Your task to perform on an android device: change the clock style Image 0: 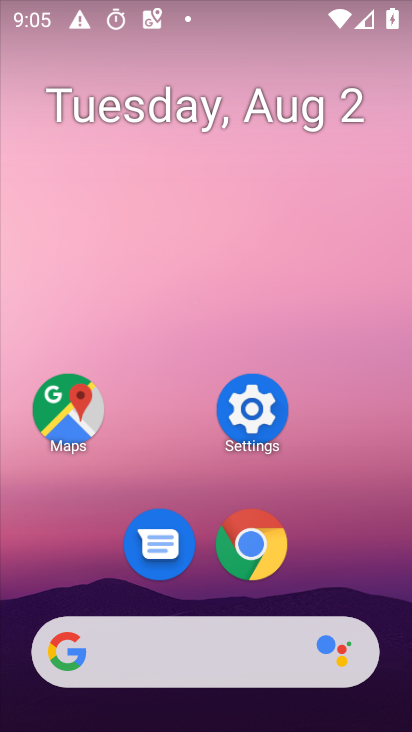
Step 0: drag from (204, 660) to (359, 13)
Your task to perform on an android device: change the clock style Image 1: 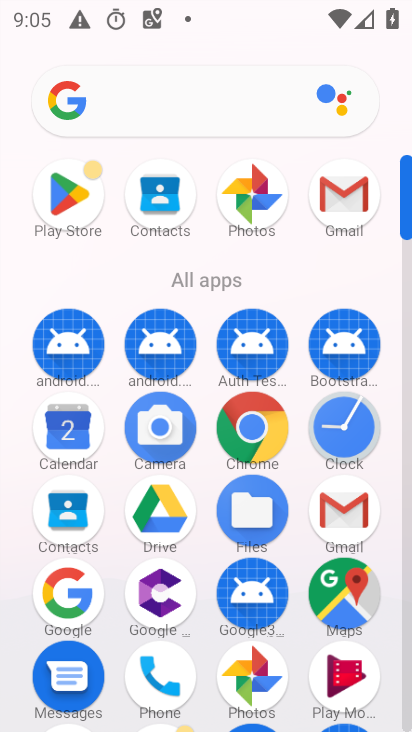
Step 1: click (335, 429)
Your task to perform on an android device: change the clock style Image 2: 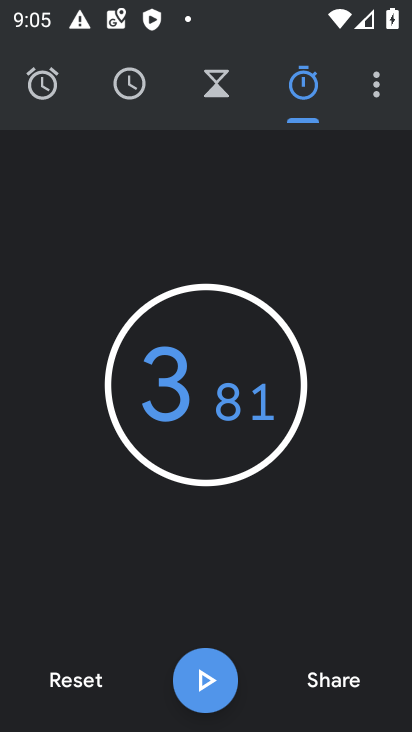
Step 2: click (379, 96)
Your task to perform on an android device: change the clock style Image 3: 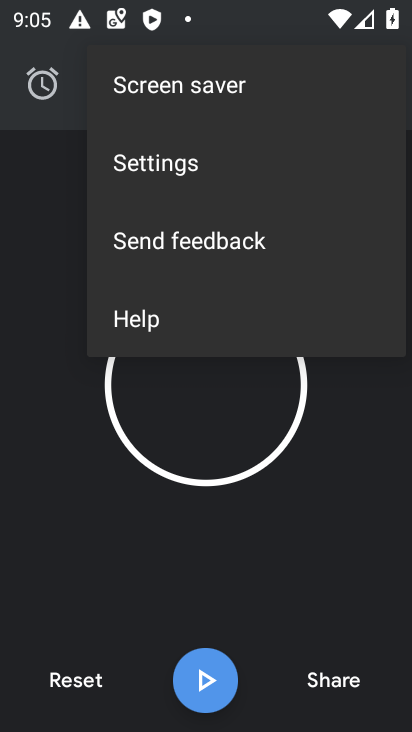
Step 3: click (179, 168)
Your task to perform on an android device: change the clock style Image 4: 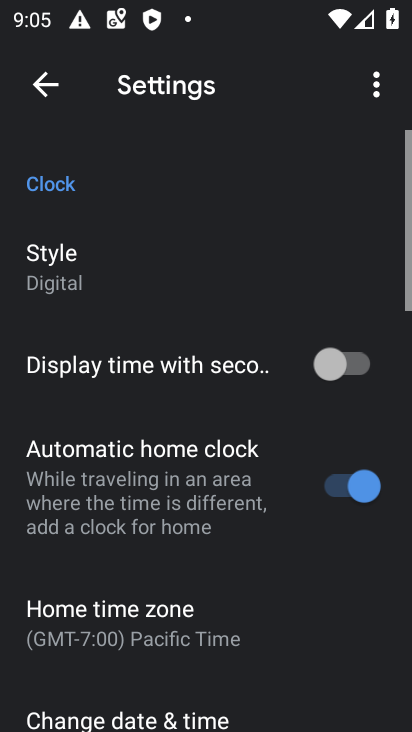
Step 4: click (56, 270)
Your task to perform on an android device: change the clock style Image 5: 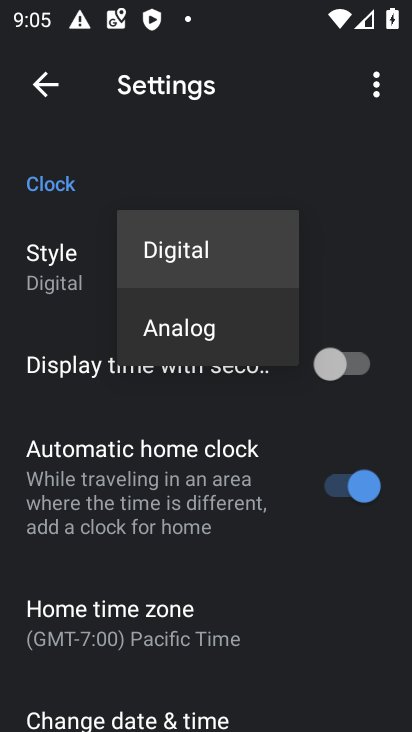
Step 5: click (160, 319)
Your task to perform on an android device: change the clock style Image 6: 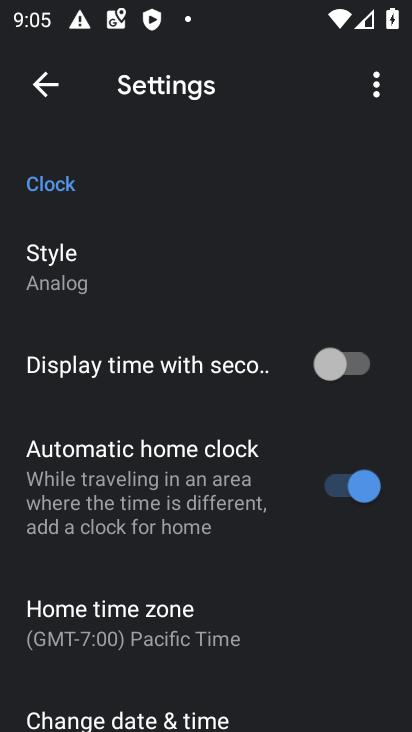
Step 6: task complete